Your task to perform on an android device: turn smart compose on in the gmail app Image 0: 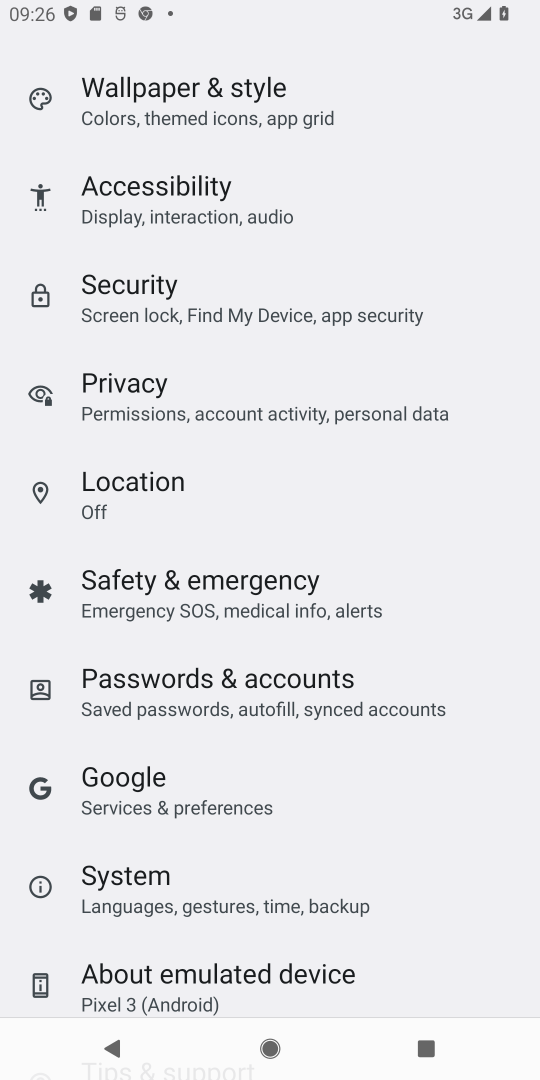
Step 0: press home button
Your task to perform on an android device: turn smart compose on in the gmail app Image 1: 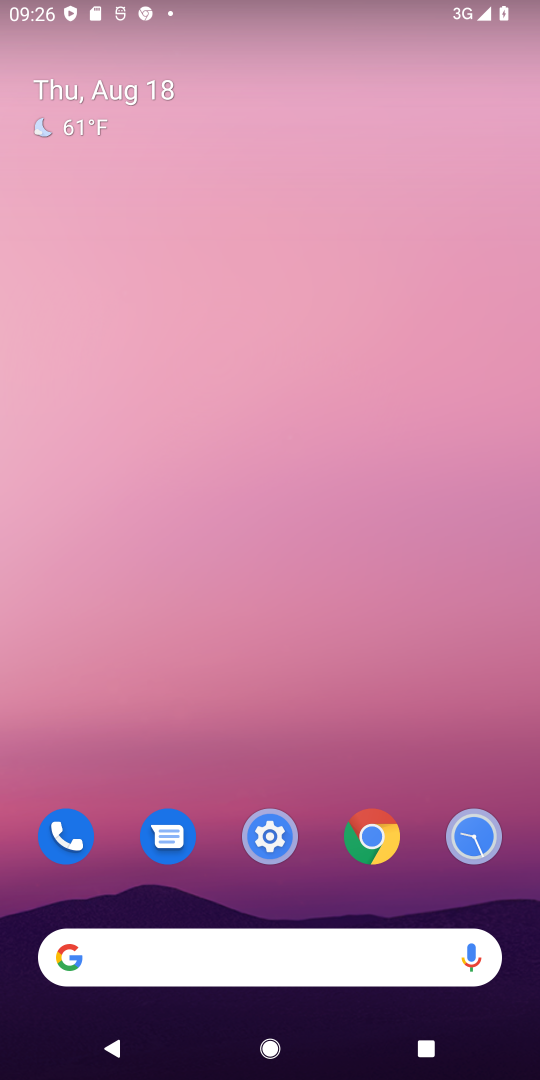
Step 1: drag from (358, 754) to (398, 0)
Your task to perform on an android device: turn smart compose on in the gmail app Image 2: 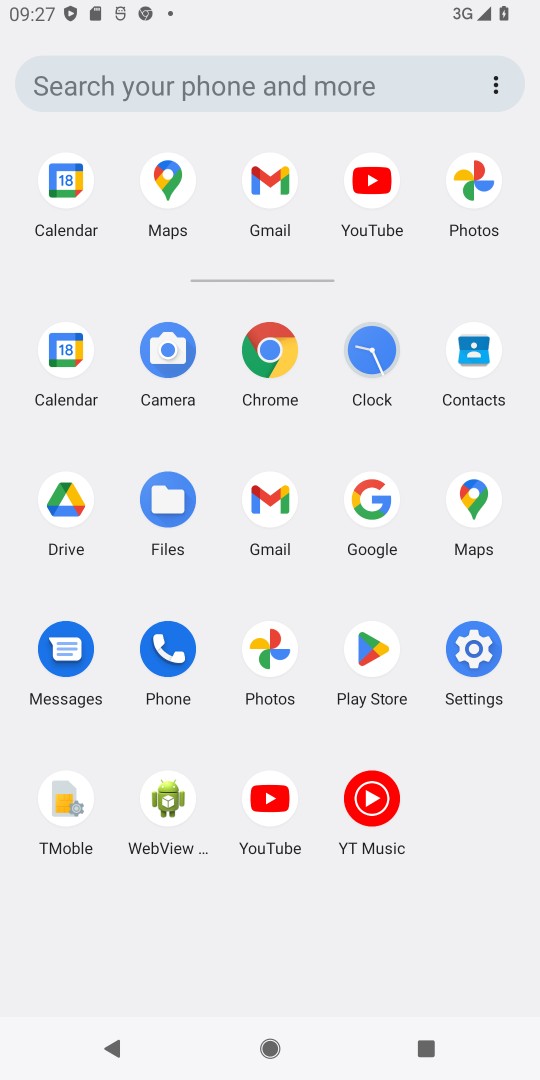
Step 2: click (279, 507)
Your task to perform on an android device: turn smart compose on in the gmail app Image 3: 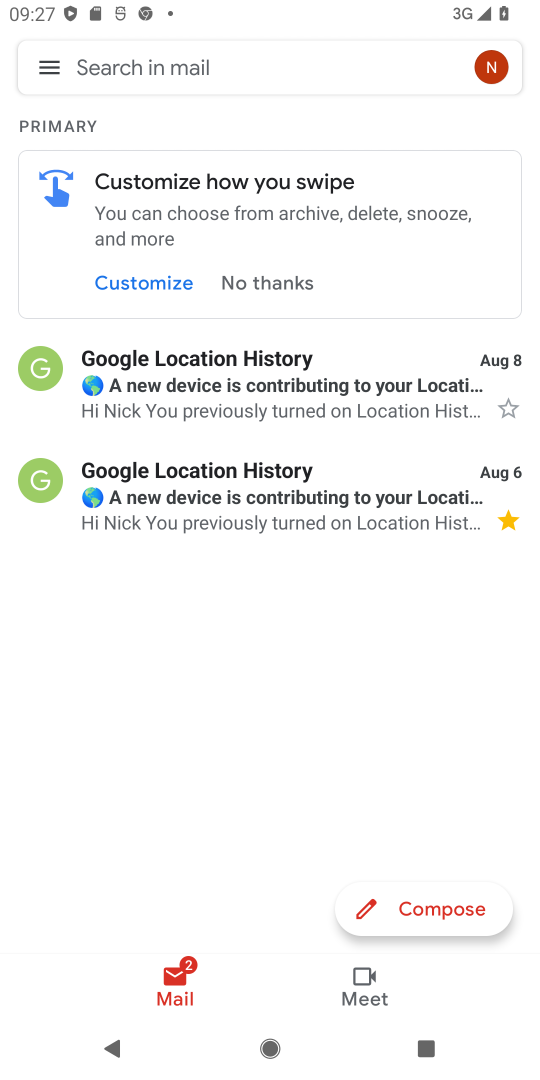
Step 3: click (72, 68)
Your task to perform on an android device: turn smart compose on in the gmail app Image 4: 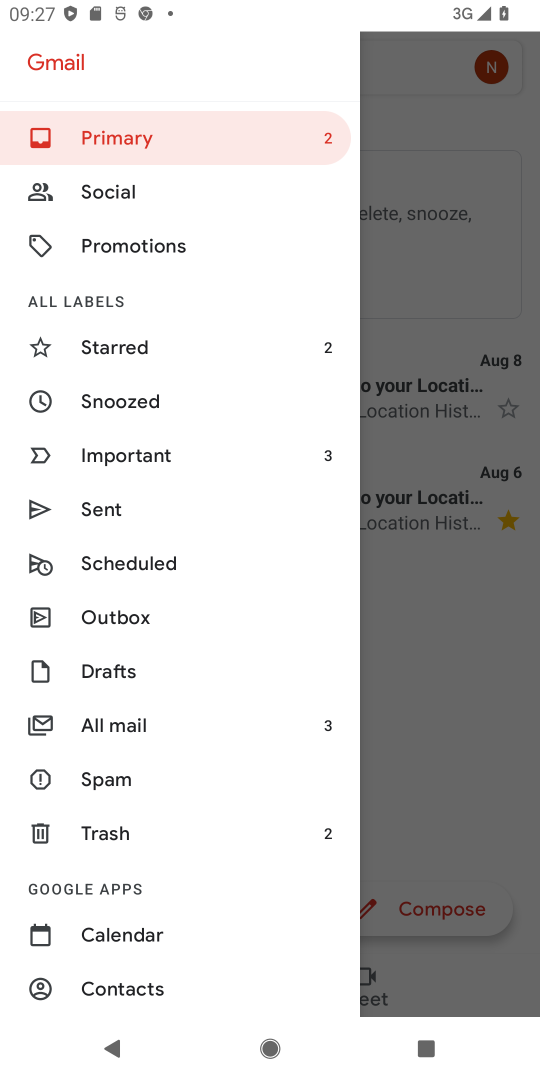
Step 4: drag from (131, 958) to (260, 280)
Your task to perform on an android device: turn smart compose on in the gmail app Image 5: 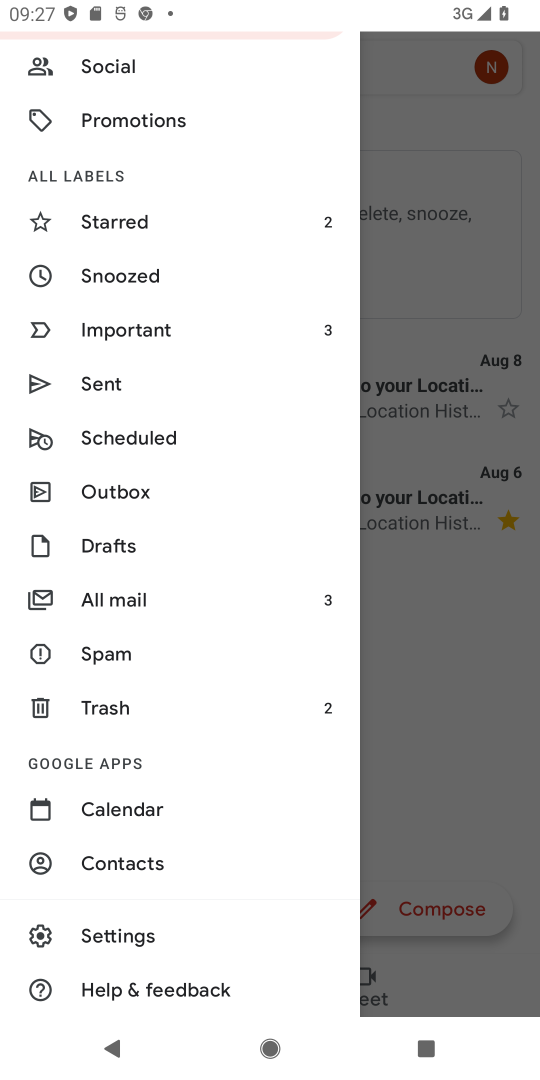
Step 5: click (159, 946)
Your task to perform on an android device: turn smart compose on in the gmail app Image 6: 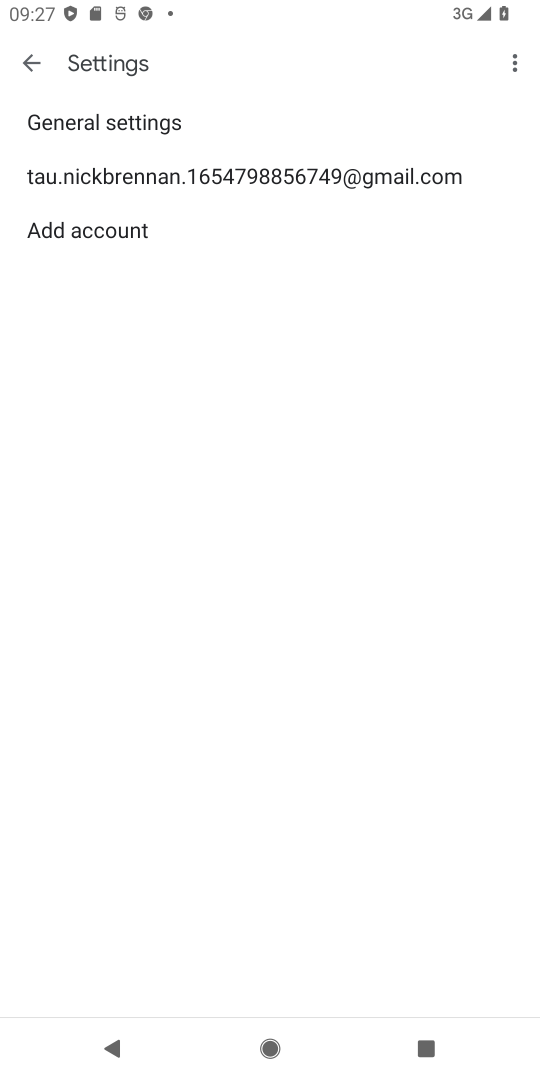
Step 6: click (309, 169)
Your task to perform on an android device: turn smart compose on in the gmail app Image 7: 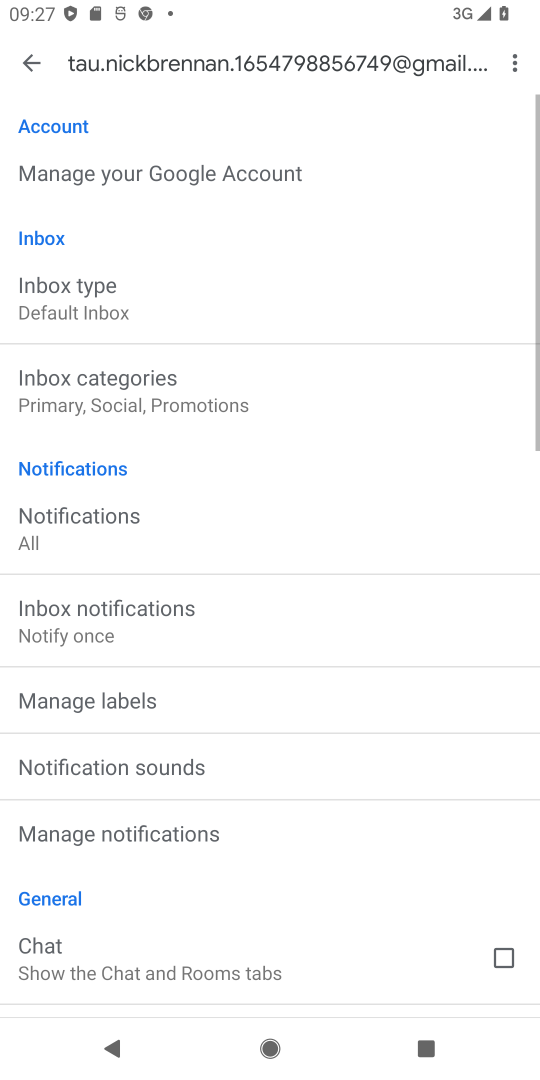
Step 7: task complete